Your task to perform on an android device: set an alarm Image 0: 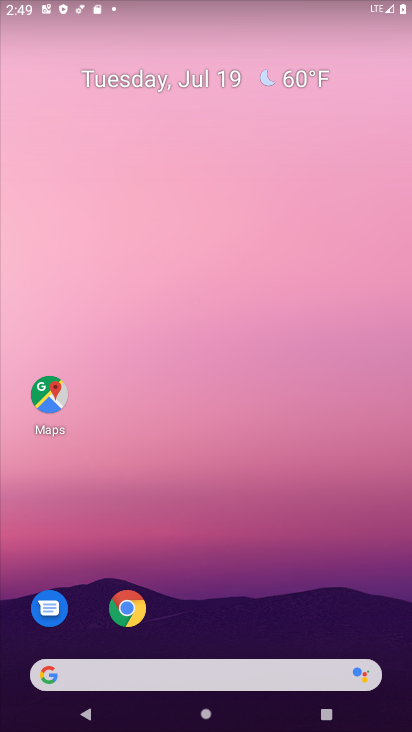
Step 0: drag from (253, 593) to (241, 13)
Your task to perform on an android device: set an alarm Image 1: 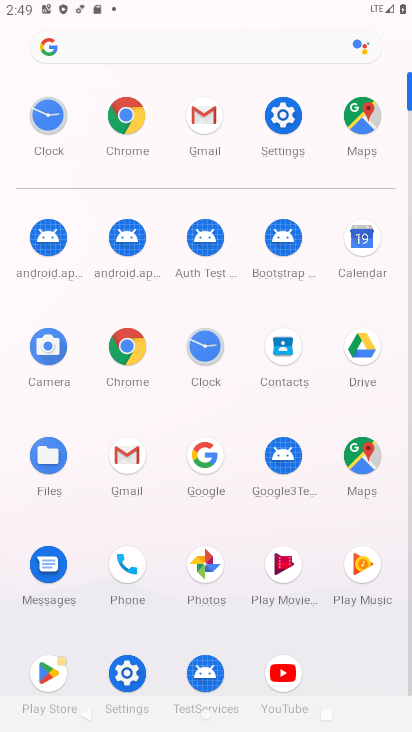
Step 1: click (55, 110)
Your task to perform on an android device: set an alarm Image 2: 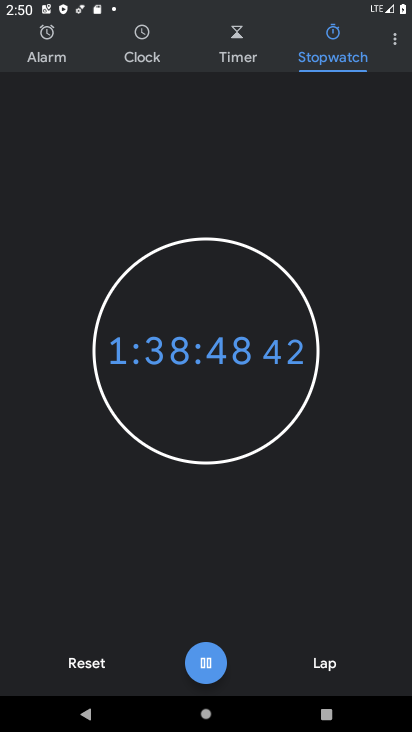
Step 2: click (46, 54)
Your task to perform on an android device: set an alarm Image 3: 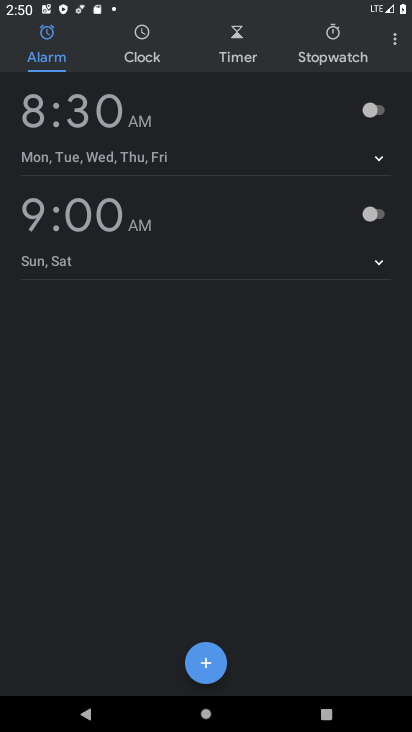
Step 3: click (378, 111)
Your task to perform on an android device: set an alarm Image 4: 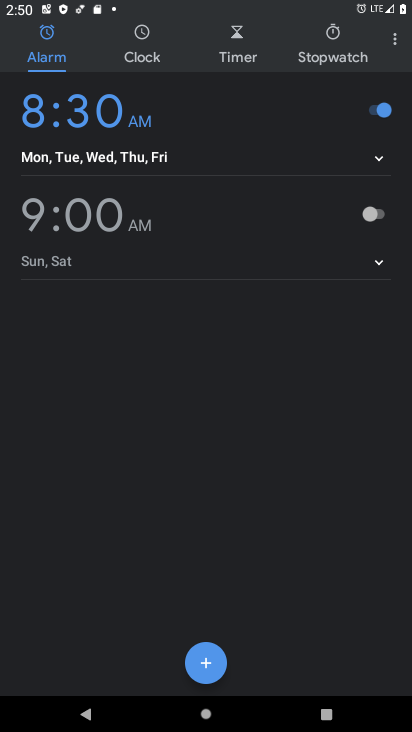
Step 4: task complete